Your task to perform on an android device: Open Google Maps Image 0: 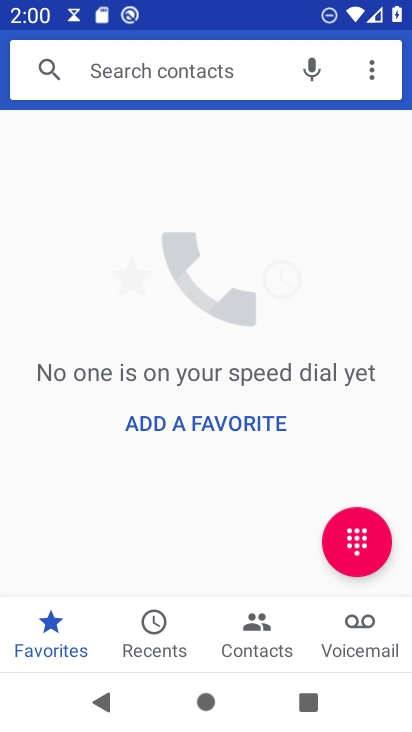
Step 0: press home button
Your task to perform on an android device: Open Google Maps Image 1: 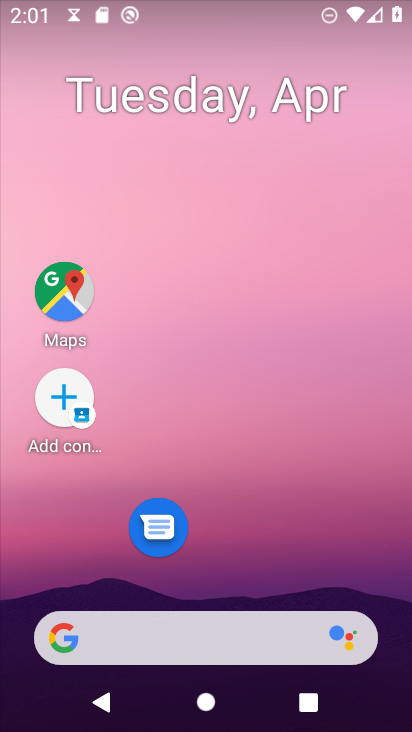
Step 1: click (65, 290)
Your task to perform on an android device: Open Google Maps Image 2: 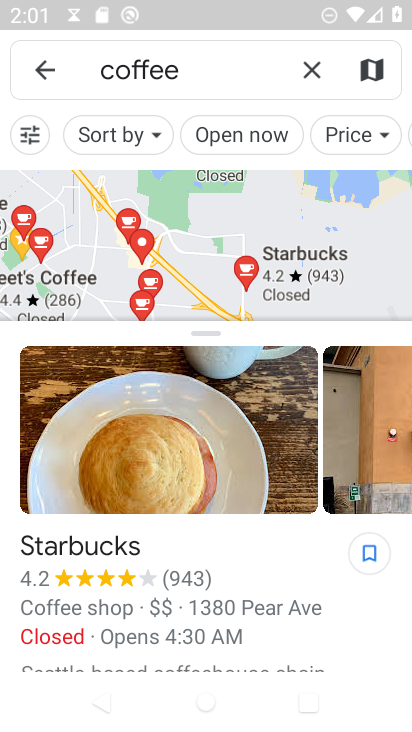
Step 2: task complete